Your task to perform on an android device: Open the calendar app, open the side menu, and click the "Day" option Image 0: 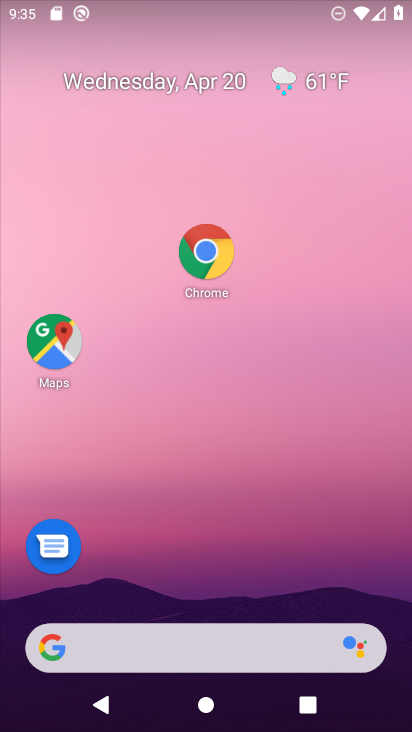
Step 0: drag from (194, 629) to (236, 197)
Your task to perform on an android device: Open the calendar app, open the side menu, and click the "Day" option Image 1: 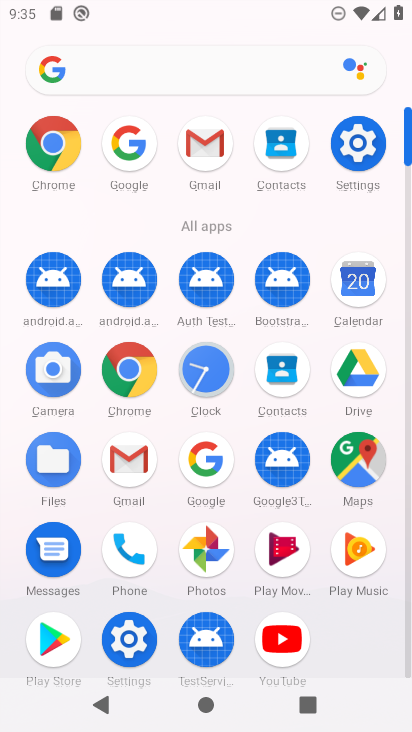
Step 1: click (368, 275)
Your task to perform on an android device: Open the calendar app, open the side menu, and click the "Day" option Image 2: 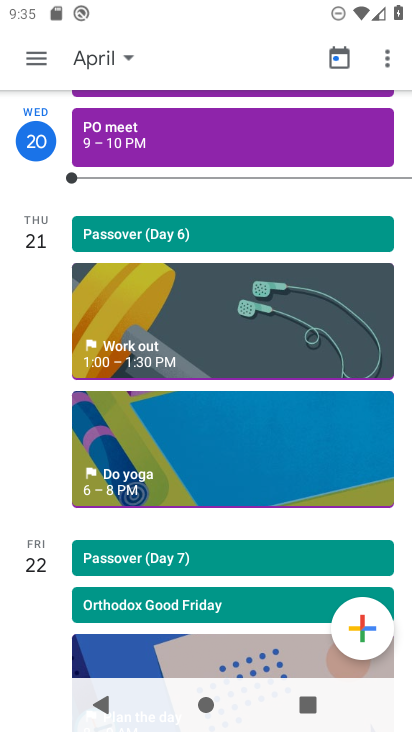
Step 2: click (31, 54)
Your task to perform on an android device: Open the calendar app, open the side menu, and click the "Day" option Image 3: 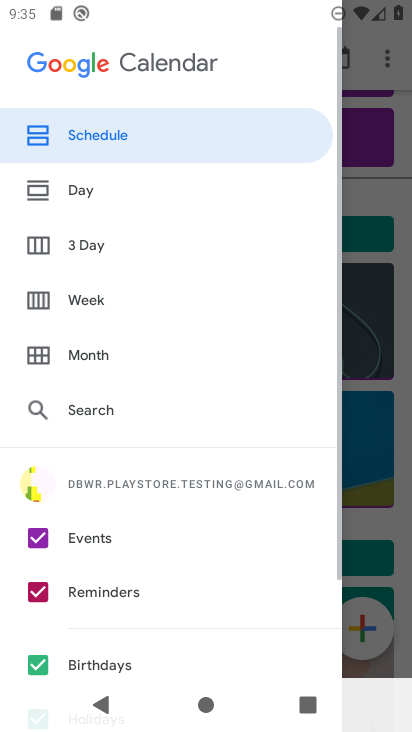
Step 3: click (95, 191)
Your task to perform on an android device: Open the calendar app, open the side menu, and click the "Day" option Image 4: 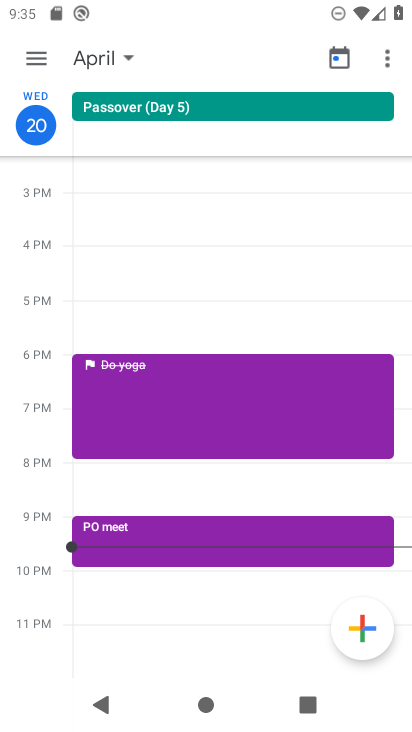
Step 4: task complete